Your task to perform on an android device: see sites visited before in the chrome app Image 0: 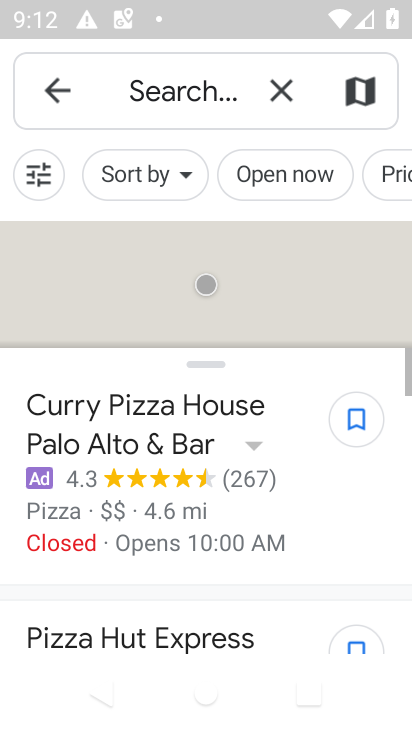
Step 0: press home button
Your task to perform on an android device: see sites visited before in the chrome app Image 1: 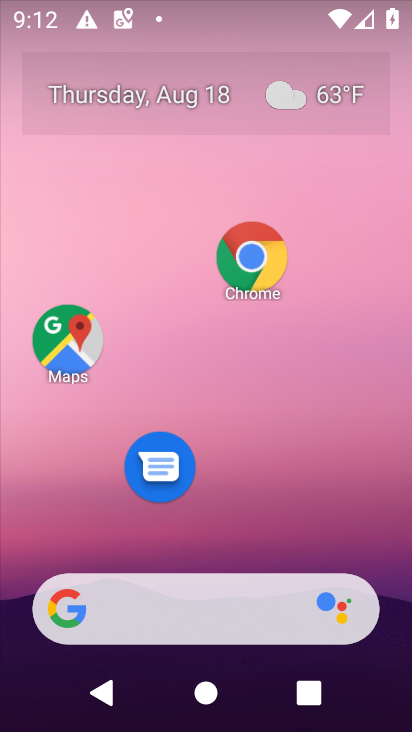
Step 1: drag from (249, 535) to (210, 164)
Your task to perform on an android device: see sites visited before in the chrome app Image 2: 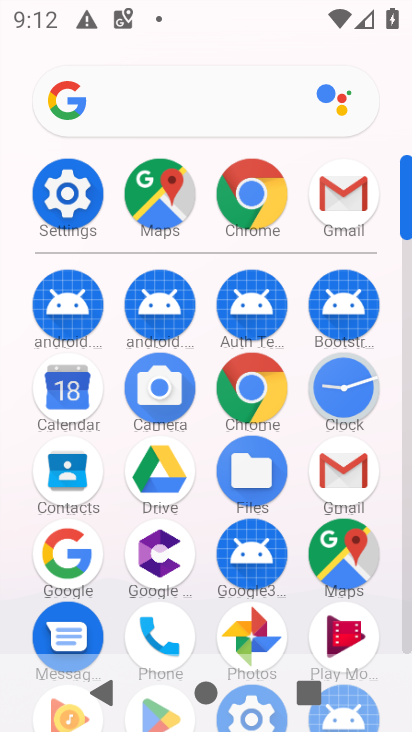
Step 2: click (256, 208)
Your task to perform on an android device: see sites visited before in the chrome app Image 3: 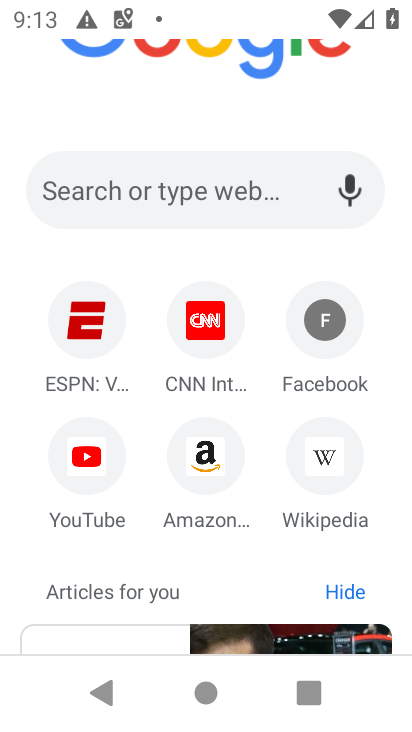
Step 3: task complete